Your task to perform on an android device: Go to Wikipedia Image 0: 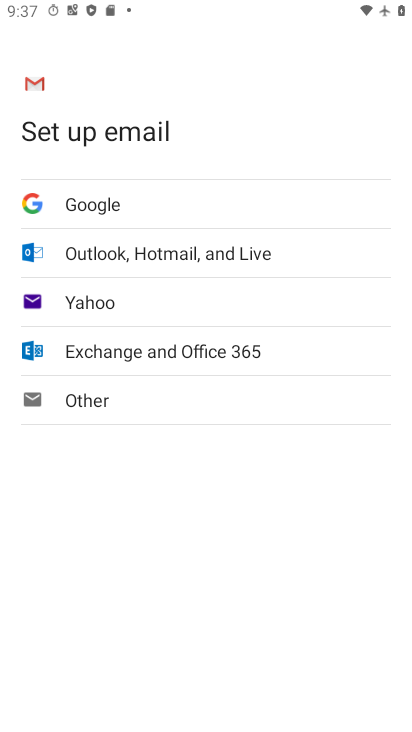
Step 0: press home button
Your task to perform on an android device: Go to Wikipedia Image 1: 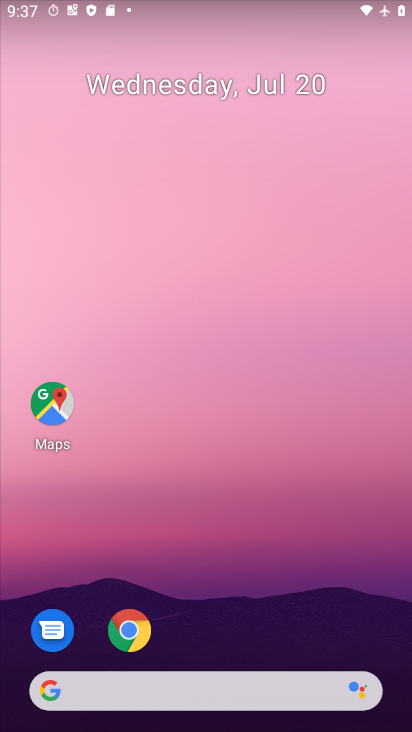
Step 1: drag from (210, 629) to (225, 278)
Your task to perform on an android device: Go to Wikipedia Image 2: 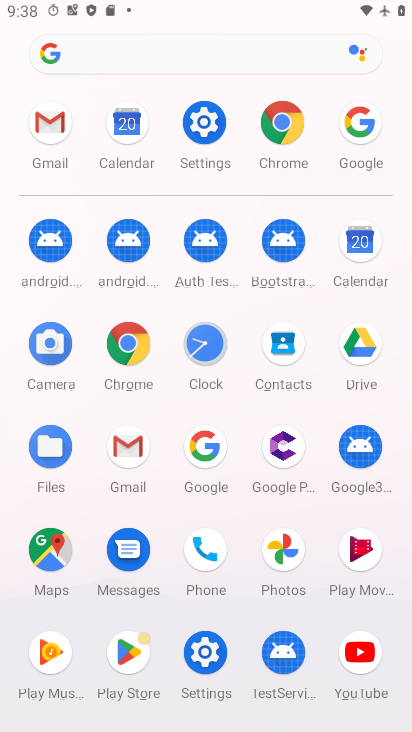
Step 2: click (284, 151)
Your task to perform on an android device: Go to Wikipedia Image 3: 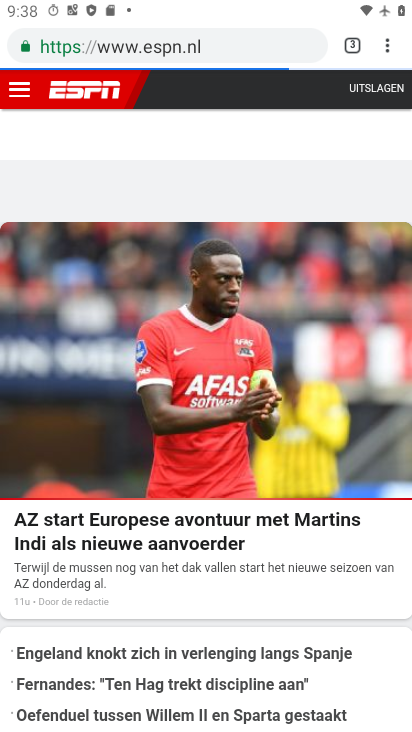
Step 3: click (289, 47)
Your task to perform on an android device: Go to Wikipedia Image 4: 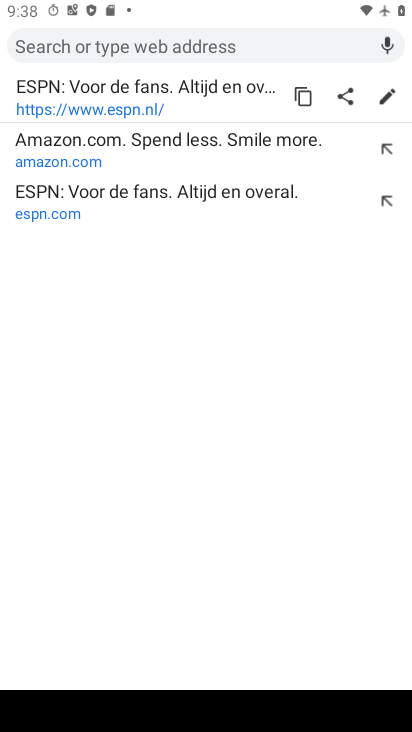
Step 4: type "wikipedia"
Your task to perform on an android device: Go to Wikipedia Image 5: 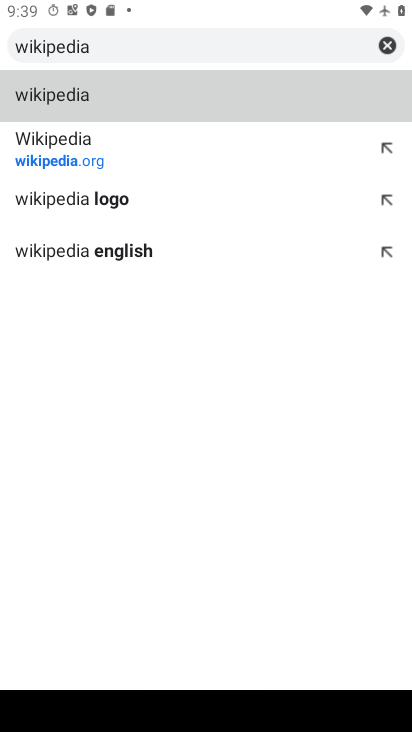
Step 5: click (131, 145)
Your task to perform on an android device: Go to Wikipedia Image 6: 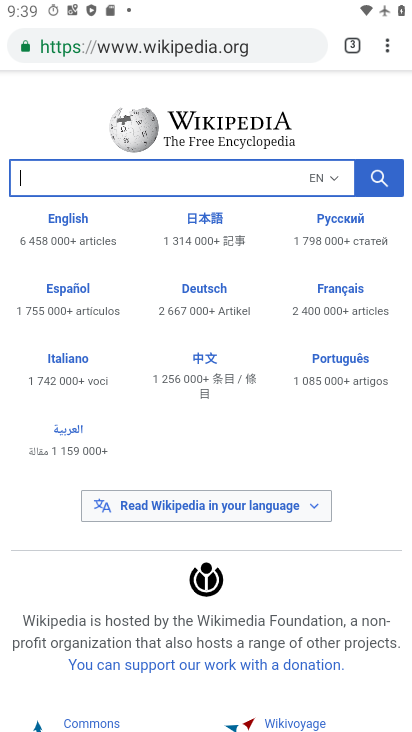
Step 6: task complete